Your task to perform on an android device: install app "McDonald's" Image 0: 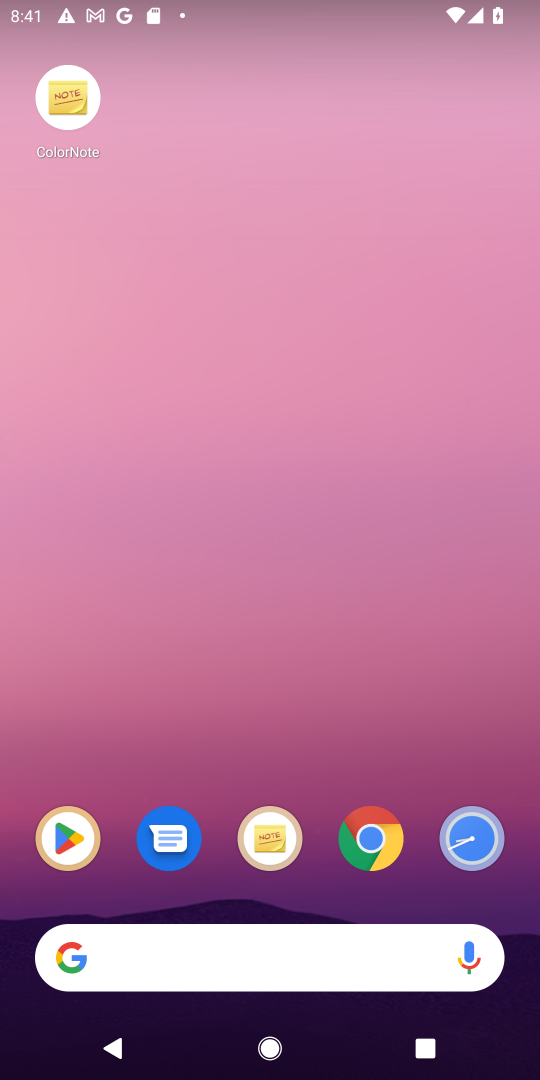
Step 0: drag from (371, 742) to (403, 75)
Your task to perform on an android device: install app "McDonald's" Image 1: 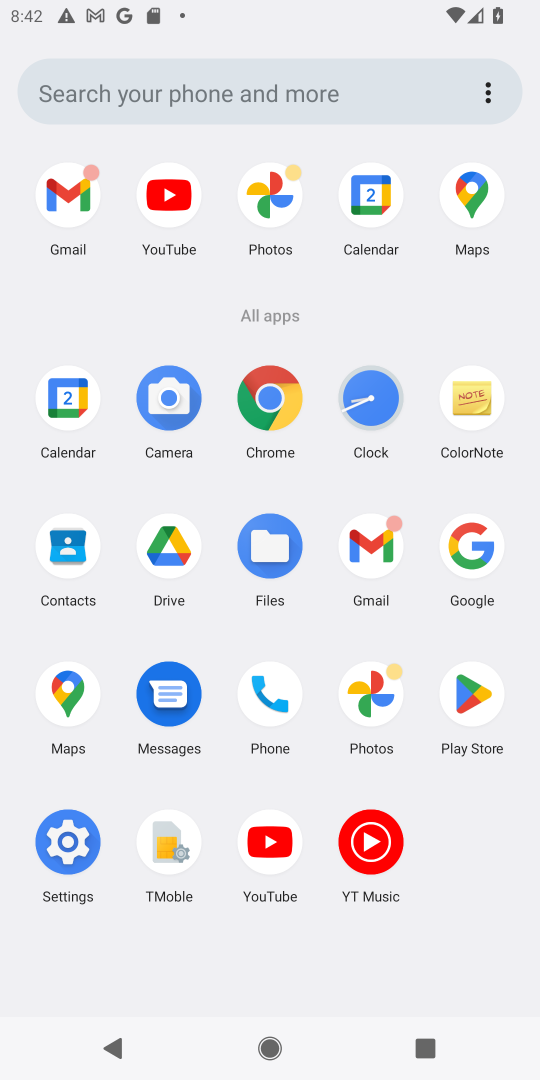
Step 1: click (471, 693)
Your task to perform on an android device: install app "McDonald's" Image 2: 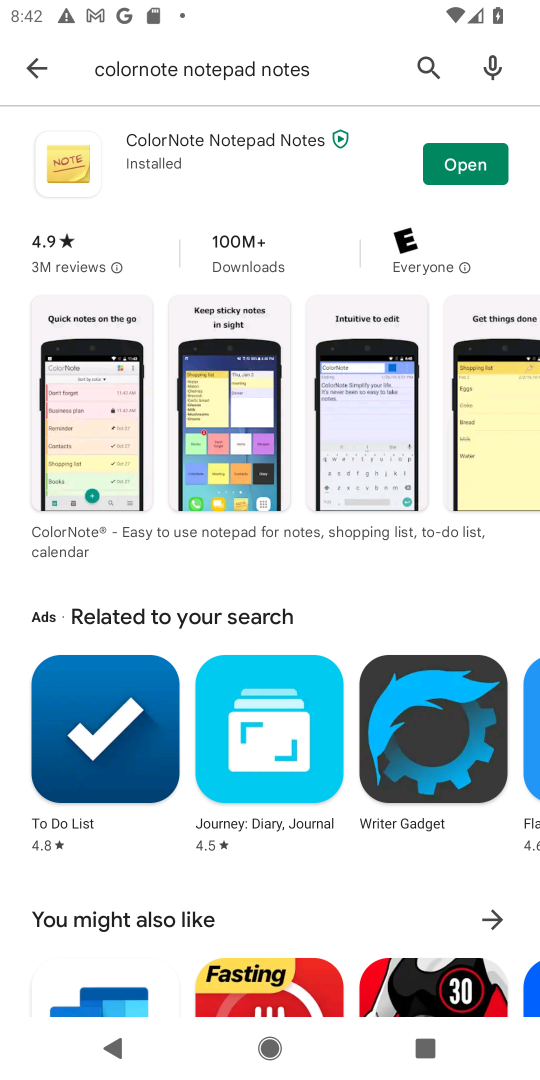
Step 2: click (414, 66)
Your task to perform on an android device: install app "McDonald's" Image 3: 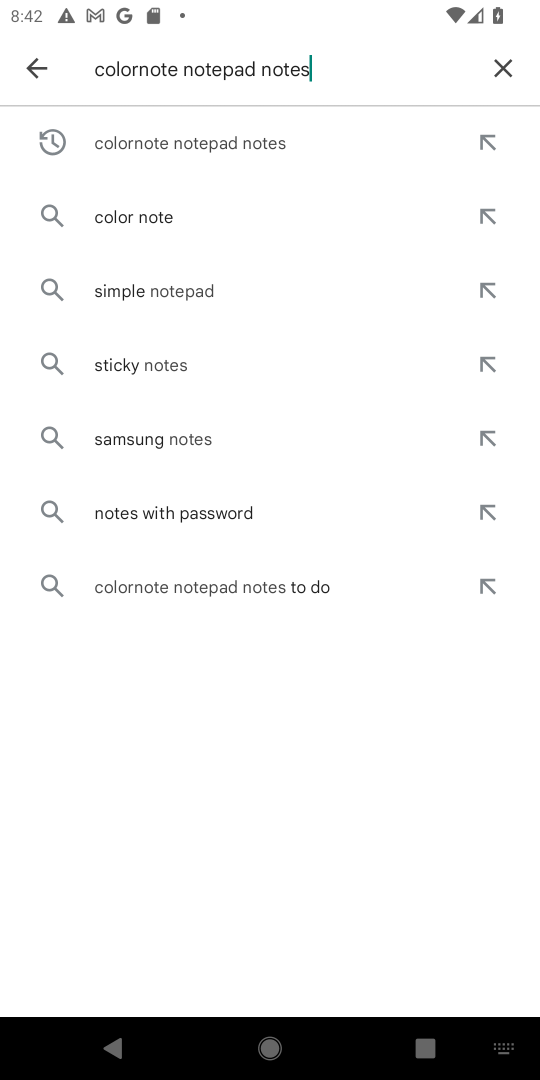
Step 3: click (506, 61)
Your task to perform on an android device: install app "McDonald's" Image 4: 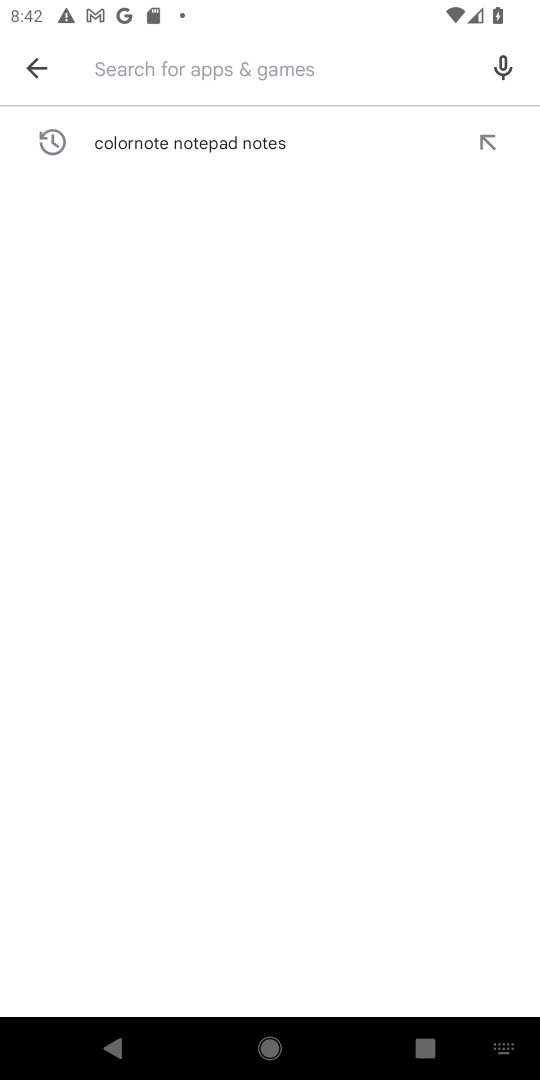
Step 4: type "mcdonalds"
Your task to perform on an android device: install app "McDonald's" Image 5: 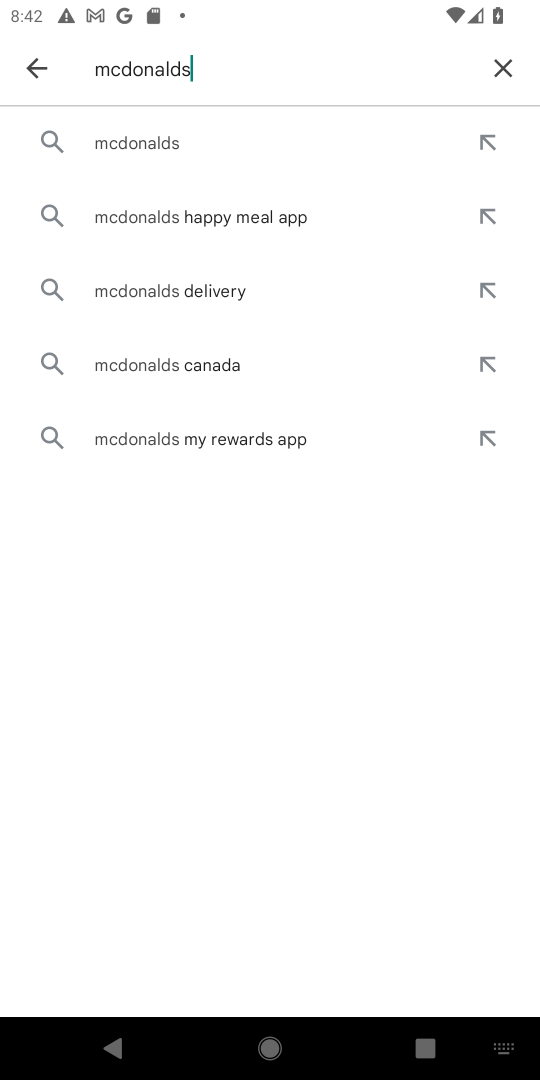
Step 5: click (285, 144)
Your task to perform on an android device: install app "McDonald's" Image 6: 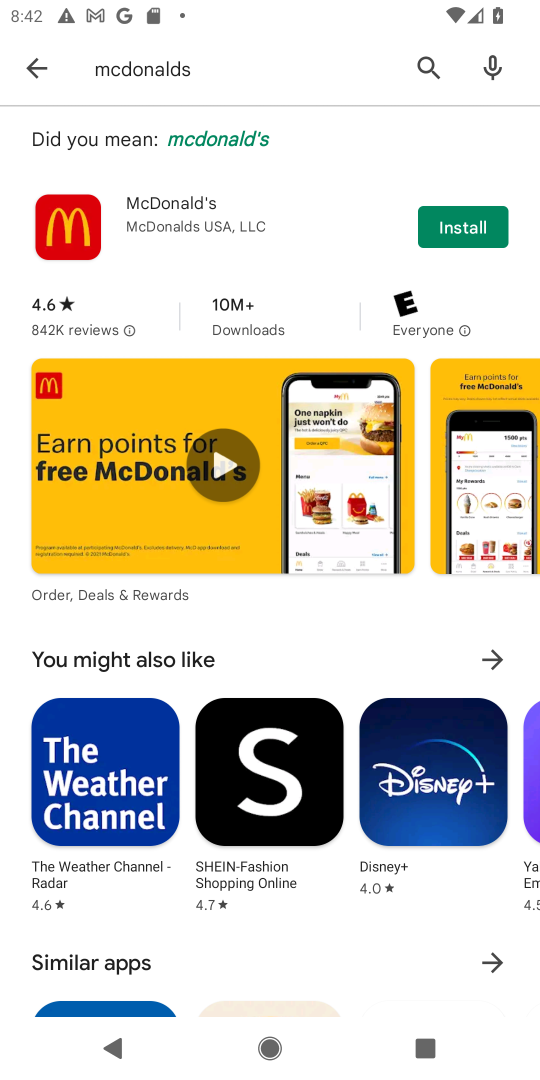
Step 6: click (466, 227)
Your task to perform on an android device: install app "McDonald's" Image 7: 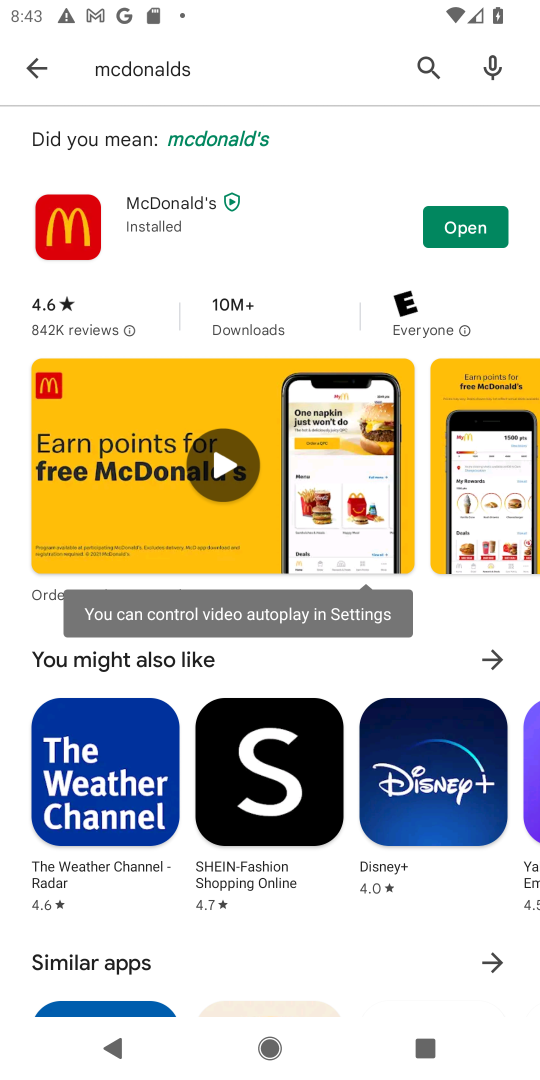
Step 7: task complete